Your task to perform on an android device: Open location settings Image 0: 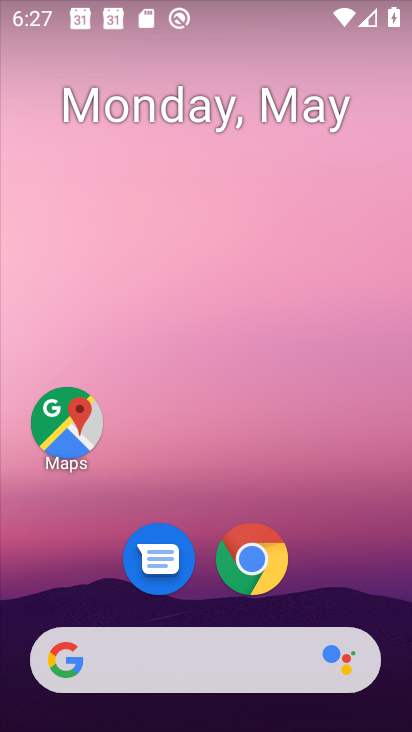
Step 0: drag from (388, 643) to (357, 55)
Your task to perform on an android device: Open location settings Image 1: 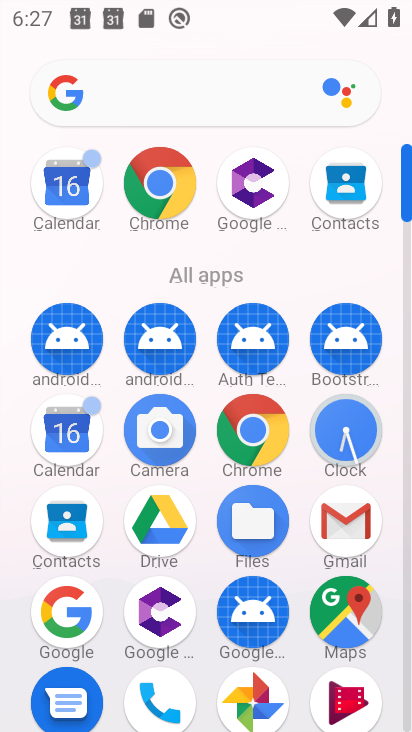
Step 1: drag from (202, 617) to (215, 549)
Your task to perform on an android device: Open location settings Image 2: 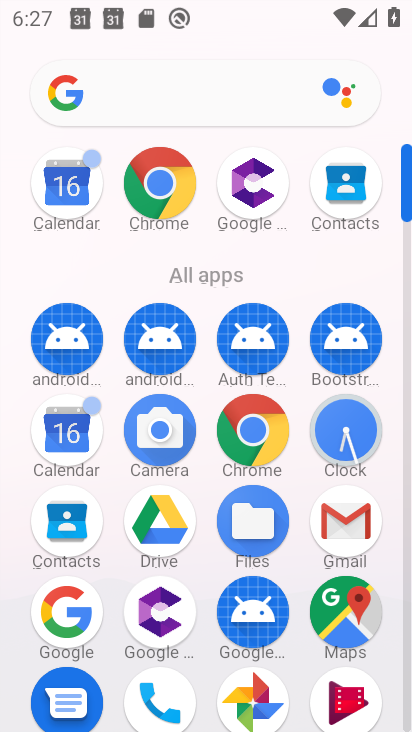
Step 2: click (231, 239)
Your task to perform on an android device: Open location settings Image 3: 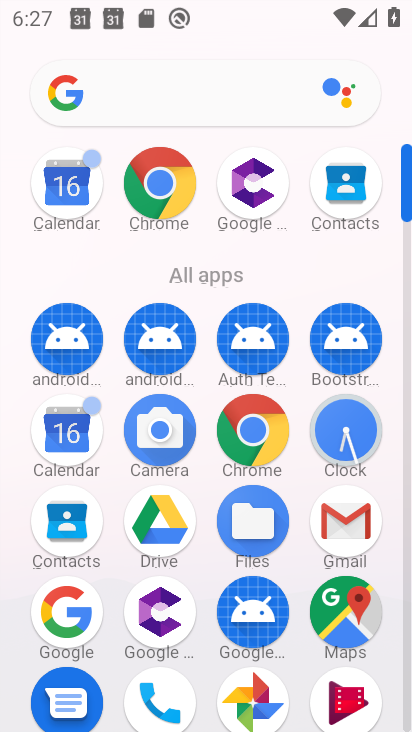
Step 3: drag from (190, 626) to (215, 123)
Your task to perform on an android device: Open location settings Image 4: 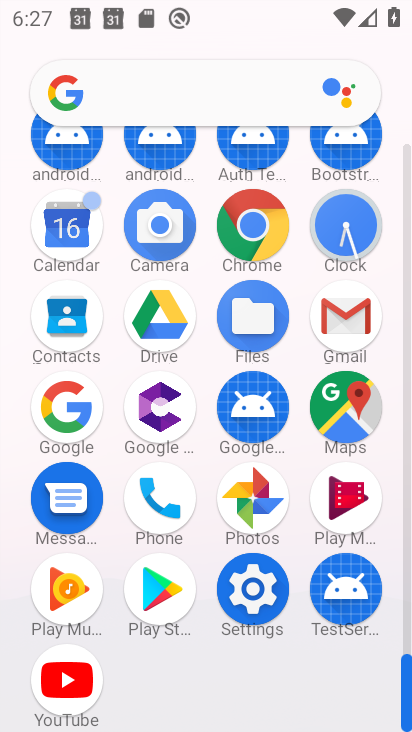
Step 4: click (240, 588)
Your task to perform on an android device: Open location settings Image 5: 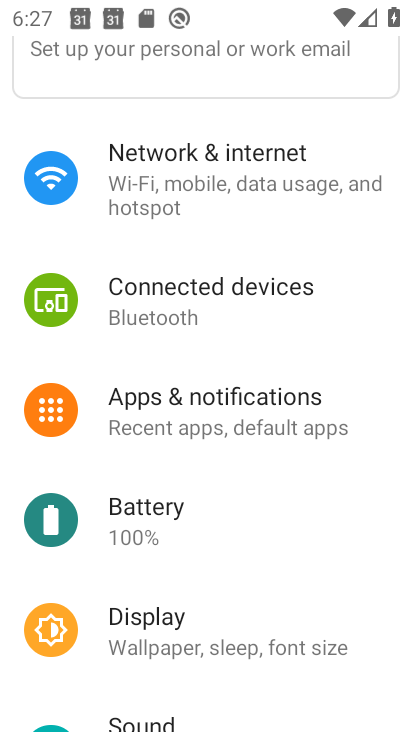
Step 5: drag from (239, 576) to (280, 112)
Your task to perform on an android device: Open location settings Image 6: 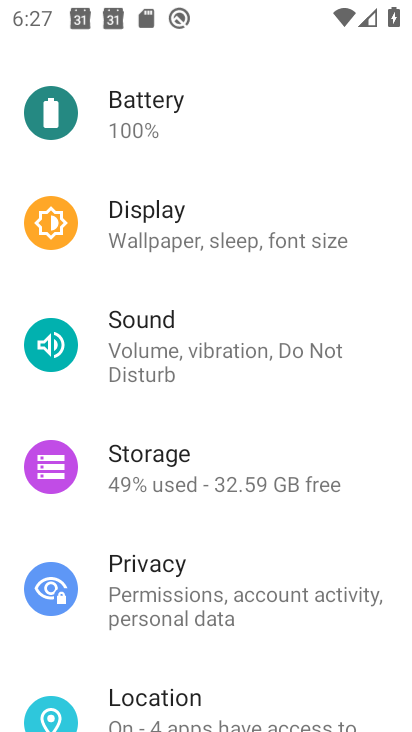
Step 6: click (153, 705)
Your task to perform on an android device: Open location settings Image 7: 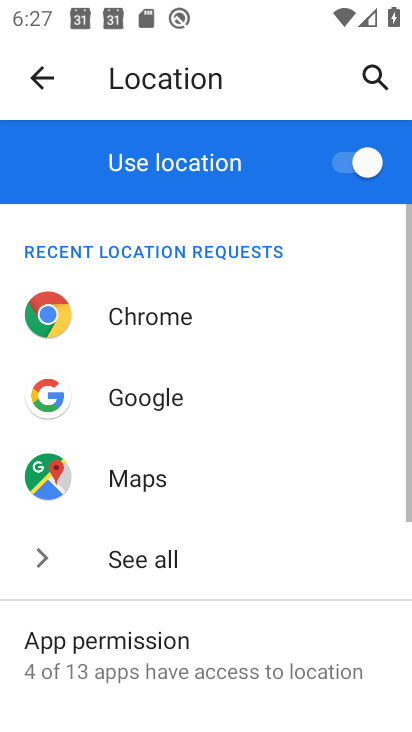
Step 7: task complete